Your task to perform on an android device: turn on showing notifications on the lock screen Image 0: 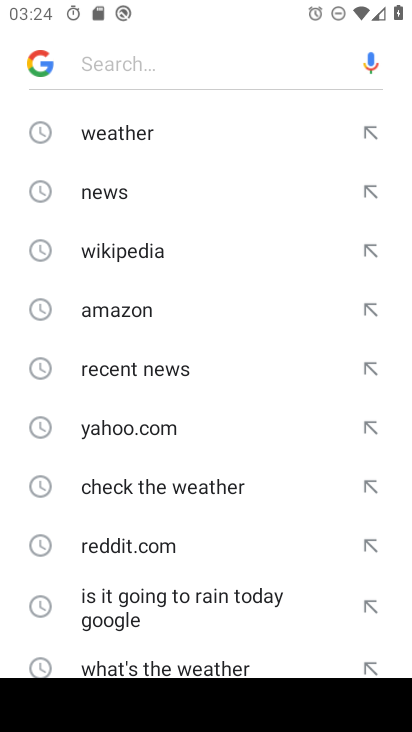
Step 0: press back button
Your task to perform on an android device: turn on showing notifications on the lock screen Image 1: 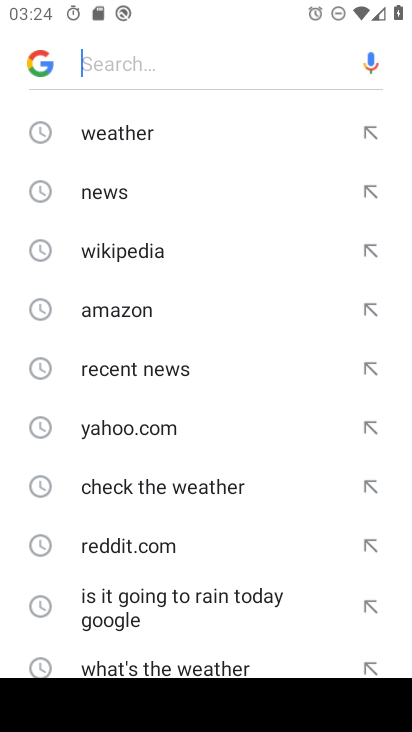
Step 1: press back button
Your task to perform on an android device: turn on showing notifications on the lock screen Image 2: 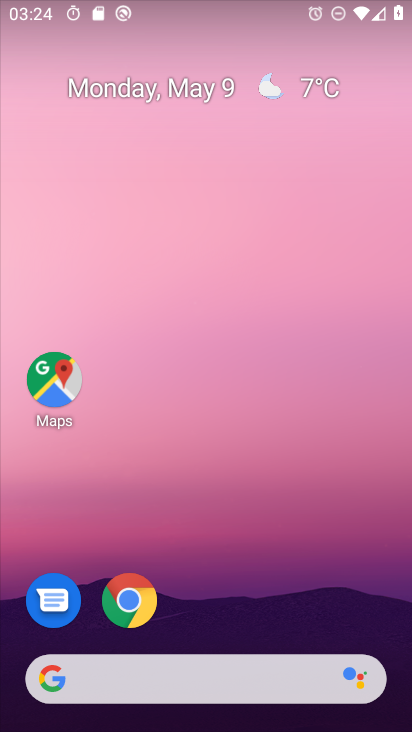
Step 2: drag from (265, 694) to (206, 337)
Your task to perform on an android device: turn on showing notifications on the lock screen Image 3: 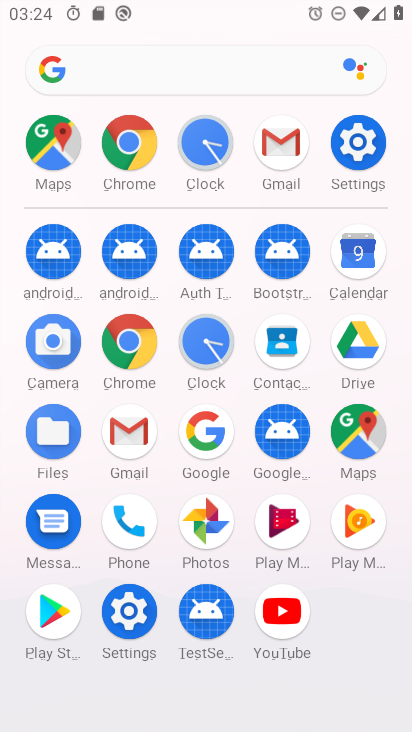
Step 3: click (343, 136)
Your task to perform on an android device: turn on showing notifications on the lock screen Image 4: 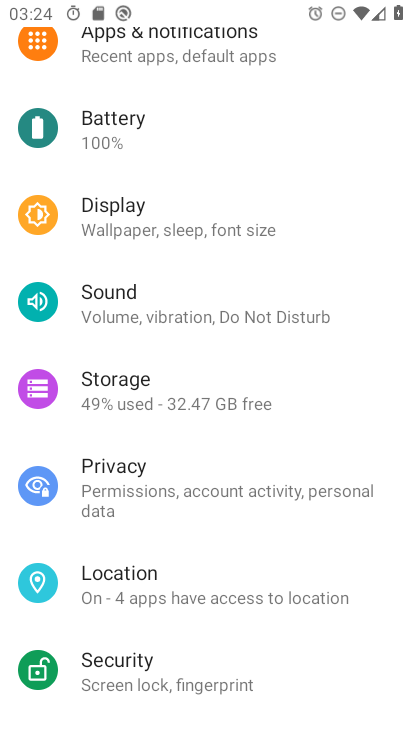
Step 4: click (103, 39)
Your task to perform on an android device: turn on showing notifications on the lock screen Image 5: 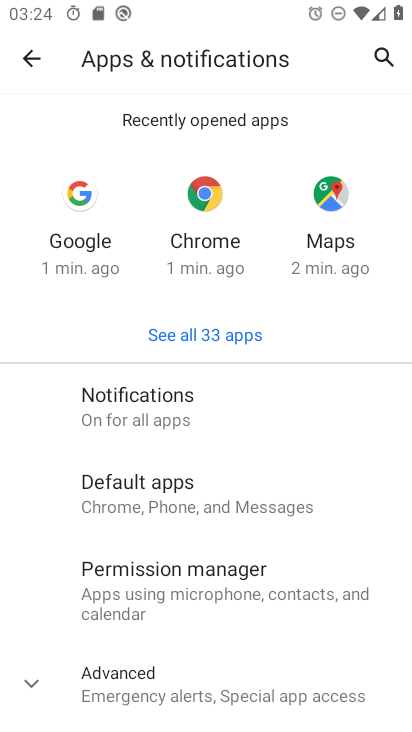
Step 5: click (207, 417)
Your task to perform on an android device: turn on showing notifications on the lock screen Image 6: 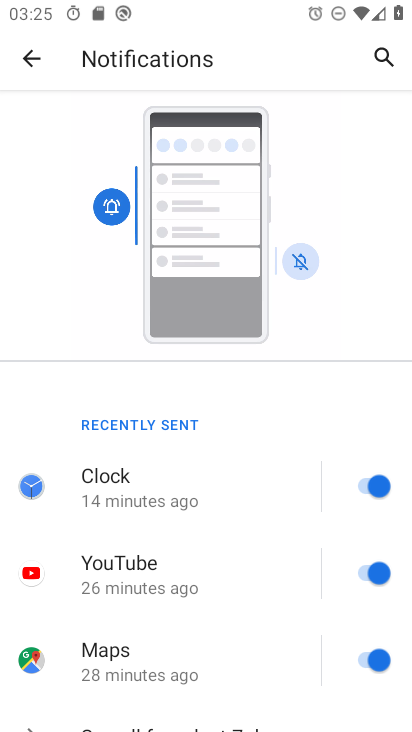
Step 6: drag from (206, 565) to (230, 161)
Your task to perform on an android device: turn on showing notifications on the lock screen Image 7: 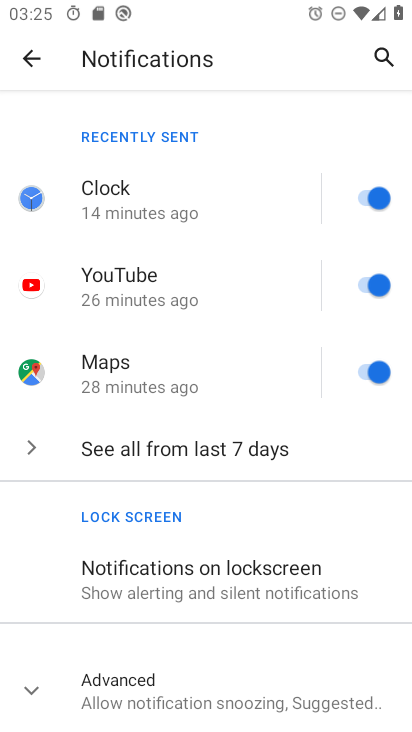
Step 7: click (246, 610)
Your task to perform on an android device: turn on showing notifications on the lock screen Image 8: 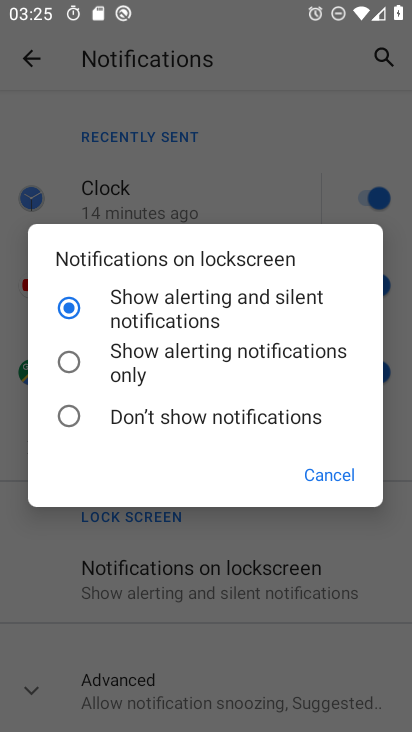
Step 8: click (291, 296)
Your task to perform on an android device: turn on showing notifications on the lock screen Image 9: 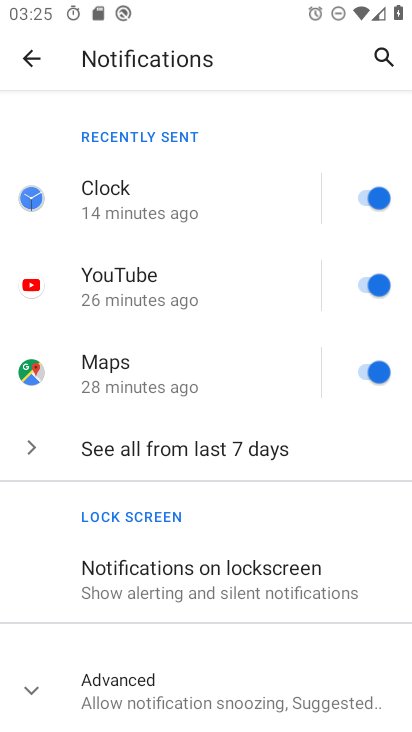
Step 9: task complete